Your task to perform on an android device: turn on data saver in the chrome app Image 0: 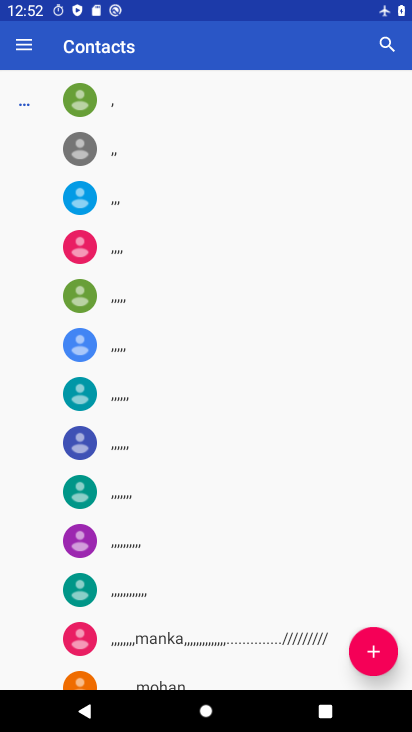
Step 0: press home button
Your task to perform on an android device: turn on data saver in the chrome app Image 1: 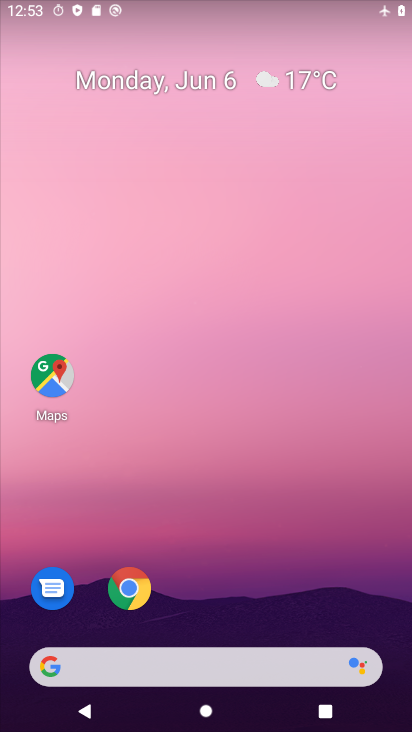
Step 1: click (133, 593)
Your task to perform on an android device: turn on data saver in the chrome app Image 2: 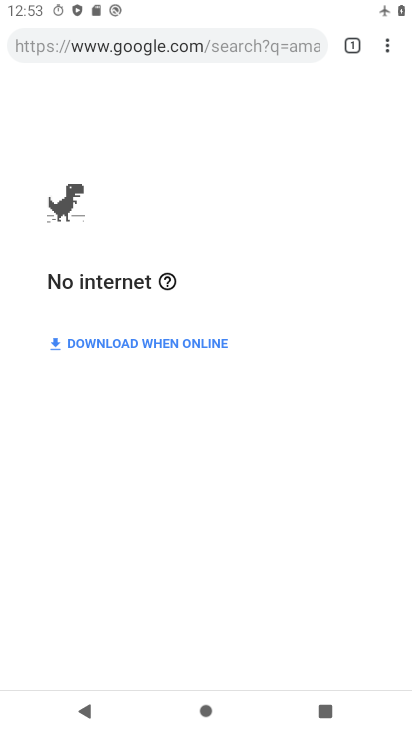
Step 2: click (396, 37)
Your task to perform on an android device: turn on data saver in the chrome app Image 3: 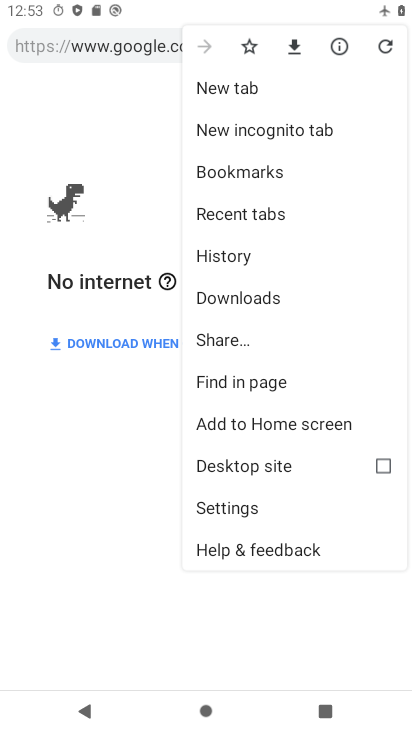
Step 3: click (242, 502)
Your task to perform on an android device: turn on data saver in the chrome app Image 4: 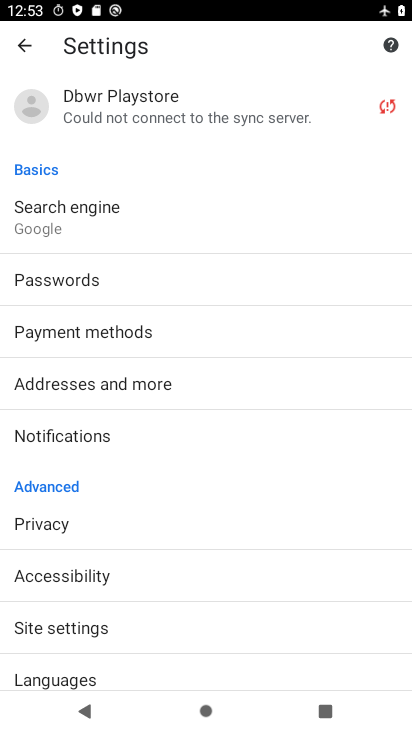
Step 4: drag from (136, 603) to (176, 234)
Your task to perform on an android device: turn on data saver in the chrome app Image 5: 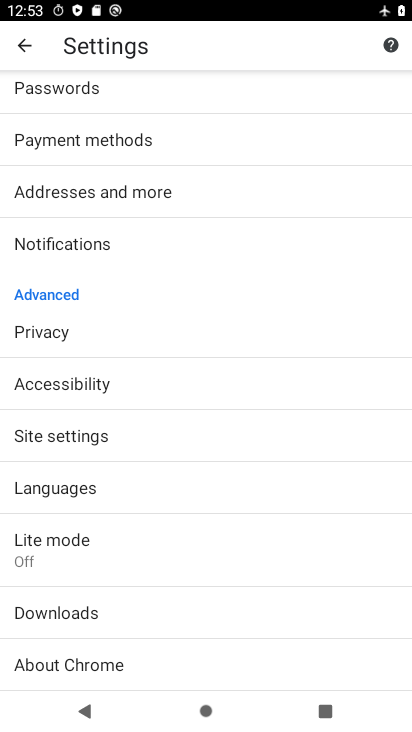
Step 5: click (83, 539)
Your task to perform on an android device: turn on data saver in the chrome app Image 6: 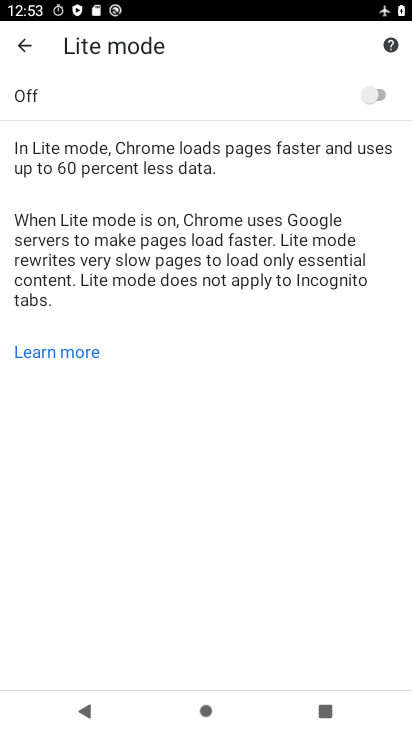
Step 6: click (376, 90)
Your task to perform on an android device: turn on data saver in the chrome app Image 7: 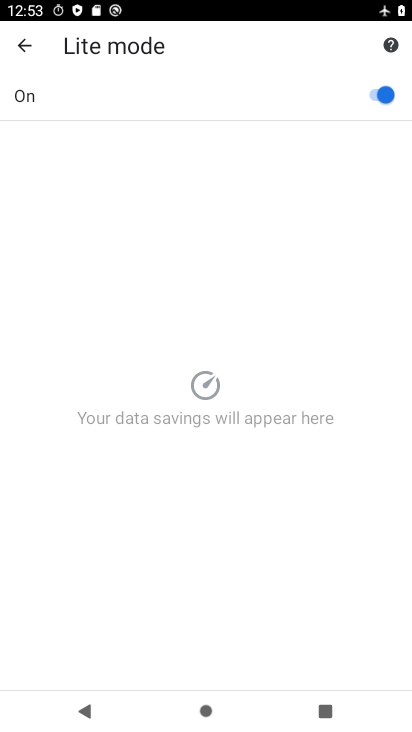
Step 7: task complete